Your task to perform on an android device: open app "Venmo" (install if not already installed), go to login, and select forgot password Image 0: 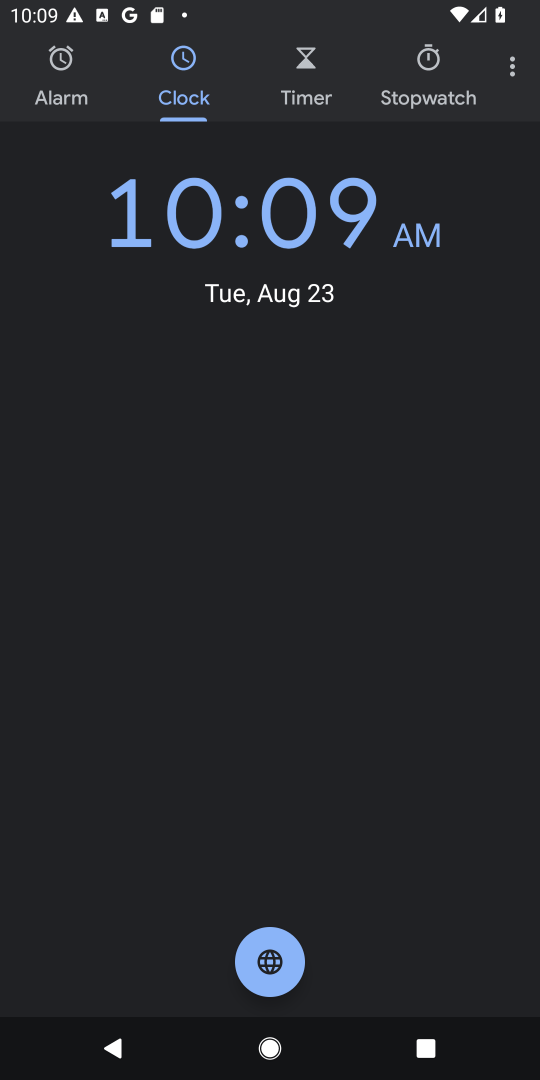
Step 0: press home button
Your task to perform on an android device: open app "Venmo" (install if not already installed), go to login, and select forgot password Image 1: 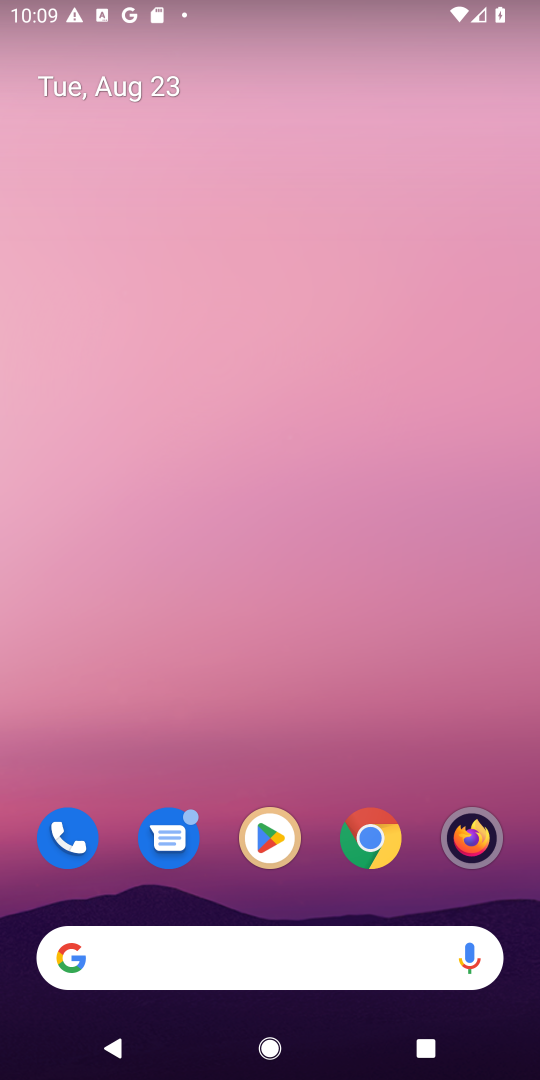
Step 1: click (255, 836)
Your task to perform on an android device: open app "Venmo" (install if not already installed), go to login, and select forgot password Image 2: 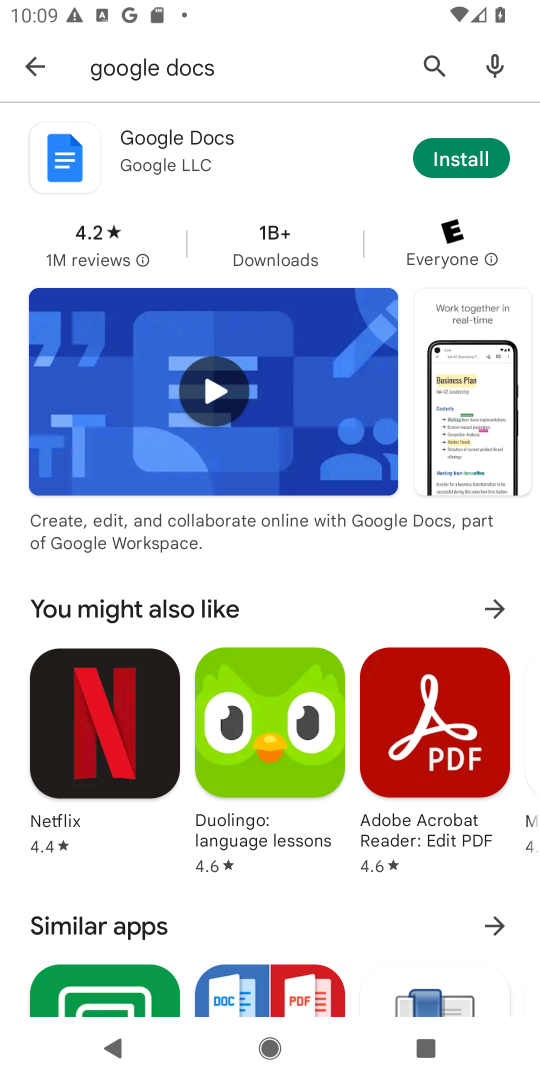
Step 2: click (436, 62)
Your task to perform on an android device: open app "Venmo" (install if not already installed), go to login, and select forgot password Image 3: 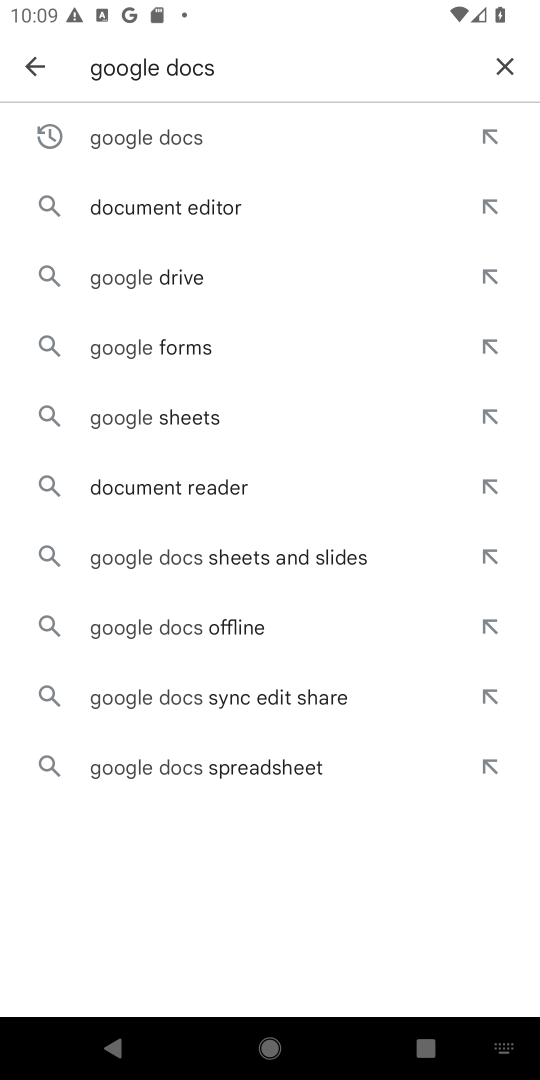
Step 3: click (506, 61)
Your task to perform on an android device: open app "Venmo" (install if not already installed), go to login, and select forgot password Image 4: 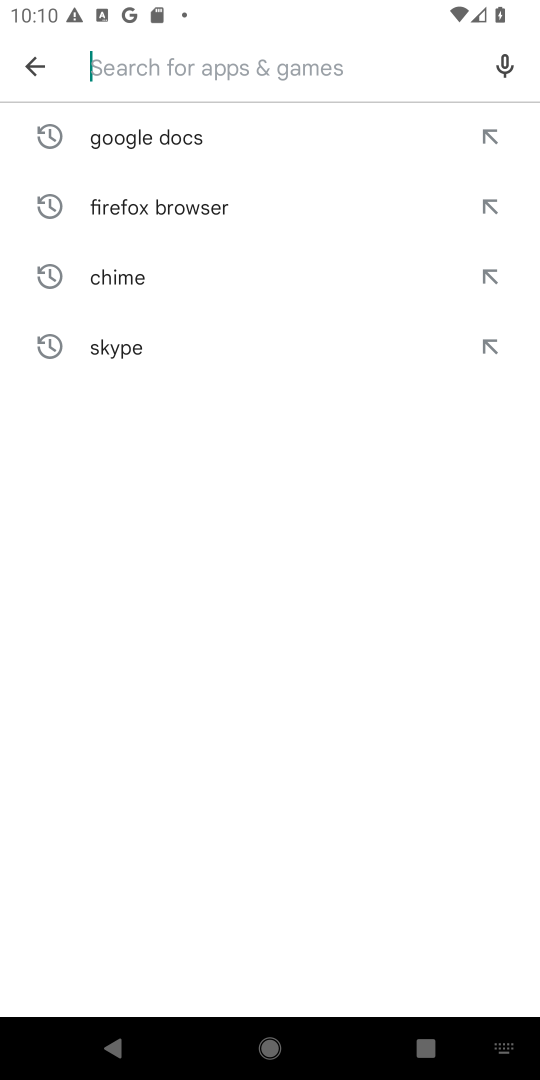
Step 4: type "Venmo"
Your task to perform on an android device: open app "Venmo" (install if not already installed), go to login, and select forgot password Image 5: 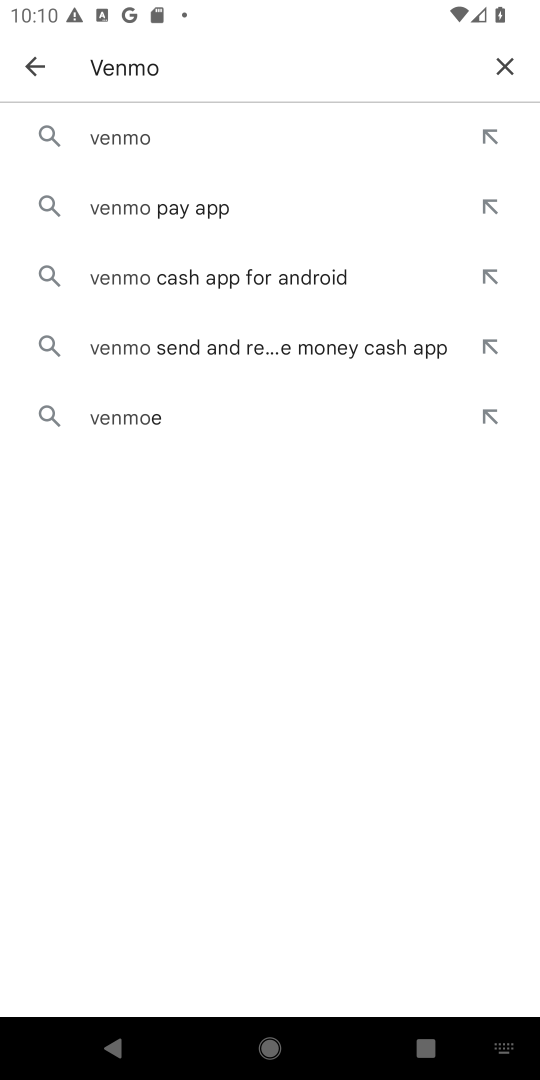
Step 5: click (174, 136)
Your task to perform on an android device: open app "Venmo" (install if not already installed), go to login, and select forgot password Image 6: 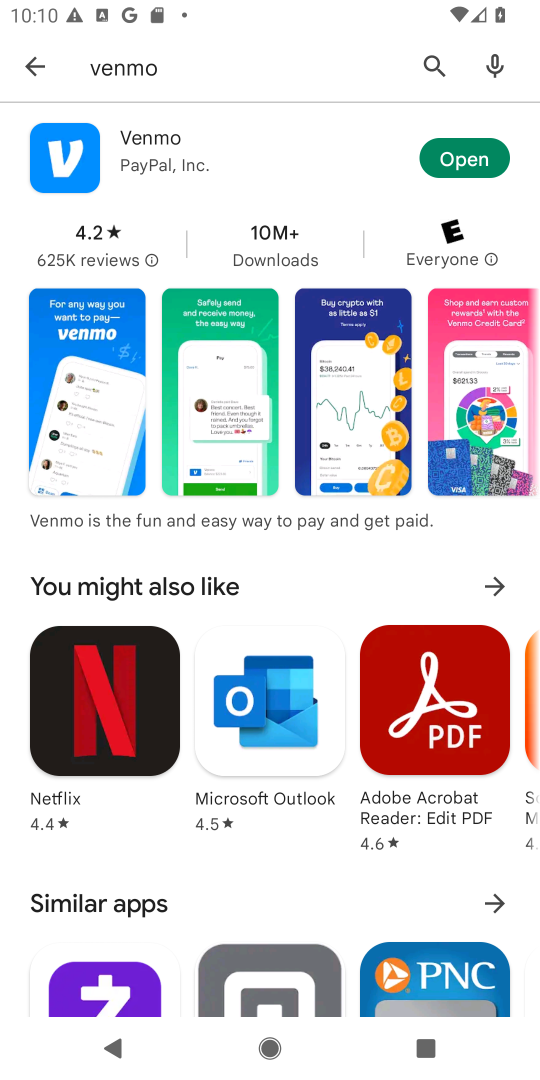
Step 6: click (481, 167)
Your task to perform on an android device: open app "Venmo" (install if not already installed), go to login, and select forgot password Image 7: 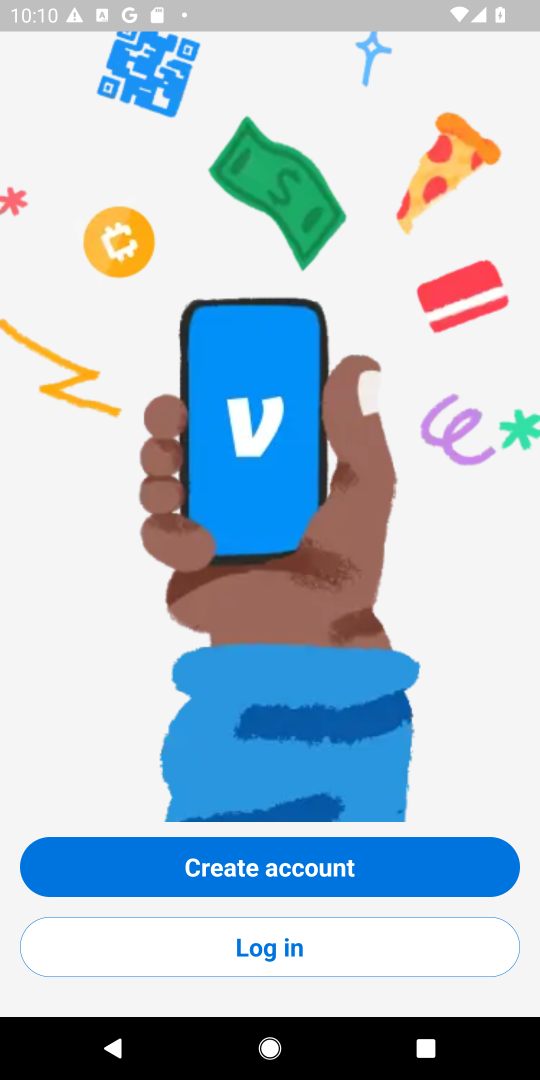
Step 7: task complete